Your task to perform on an android device: set the timer Image 0: 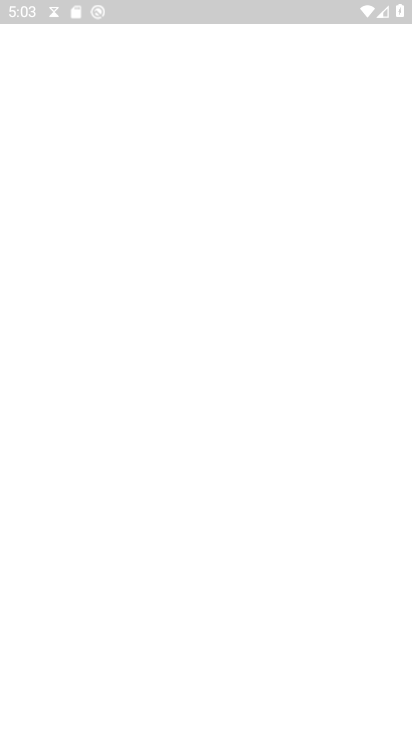
Step 0: drag from (325, 637) to (295, 121)
Your task to perform on an android device: set the timer Image 1: 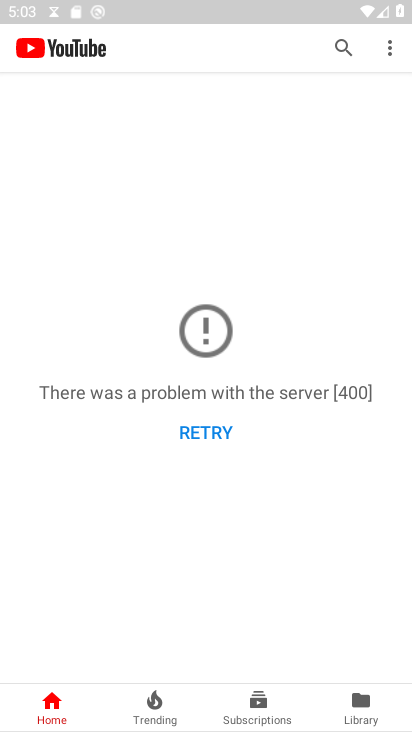
Step 1: press home button
Your task to perform on an android device: set the timer Image 2: 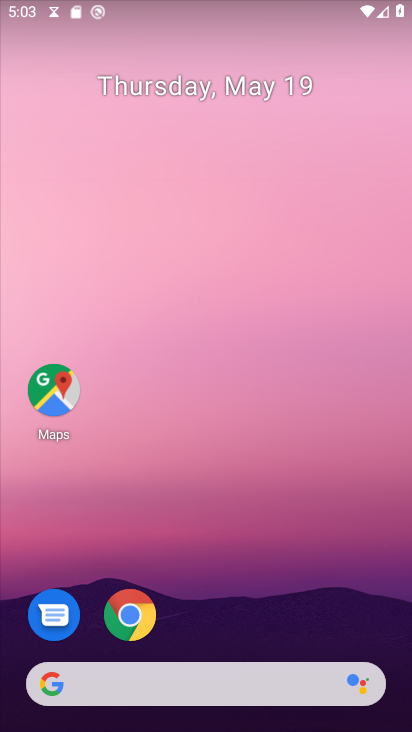
Step 2: drag from (248, 623) to (167, 20)
Your task to perform on an android device: set the timer Image 3: 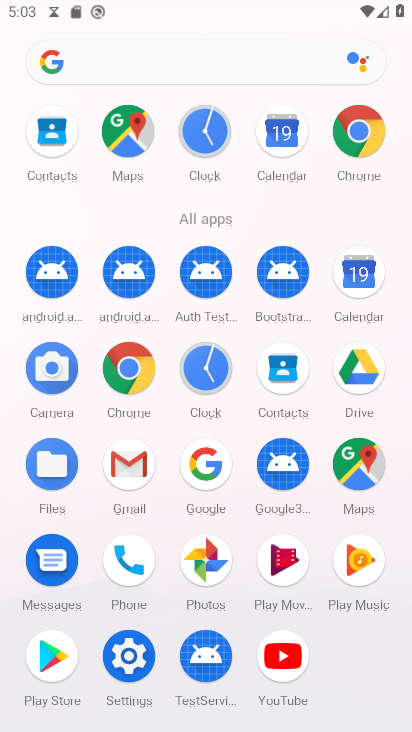
Step 3: click (197, 360)
Your task to perform on an android device: set the timer Image 4: 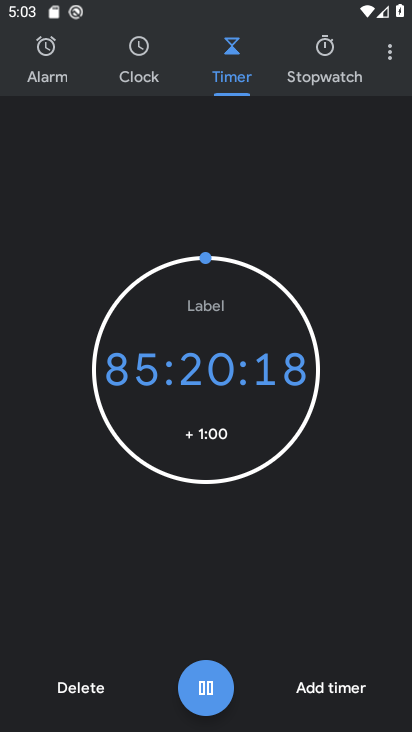
Step 4: task complete